Your task to perform on an android device: change your default location settings in chrome Image 0: 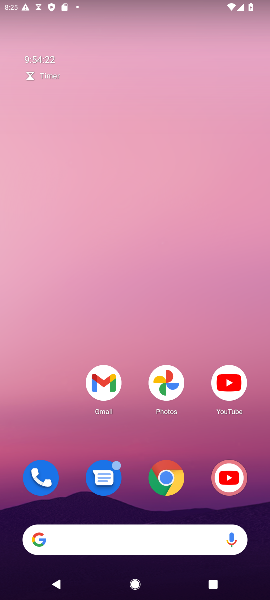
Step 0: drag from (204, 350) to (194, 9)
Your task to perform on an android device: change your default location settings in chrome Image 1: 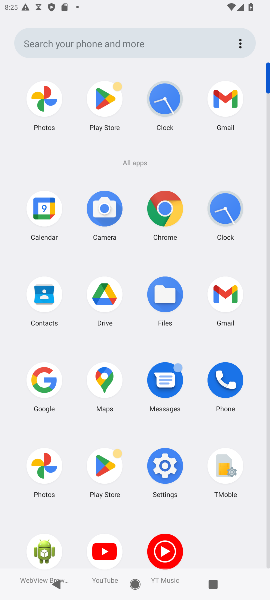
Step 1: click (170, 208)
Your task to perform on an android device: change your default location settings in chrome Image 2: 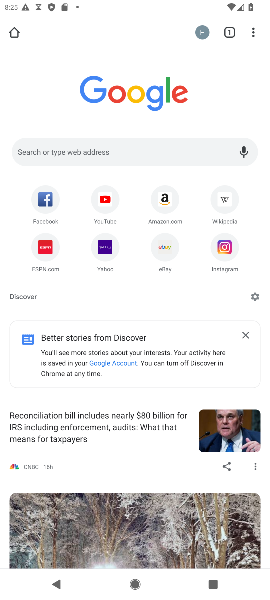
Step 2: click (260, 35)
Your task to perform on an android device: change your default location settings in chrome Image 3: 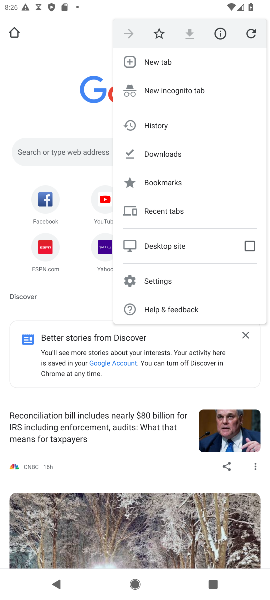
Step 3: click (151, 277)
Your task to perform on an android device: change your default location settings in chrome Image 4: 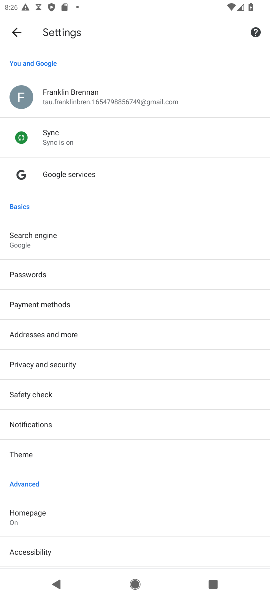
Step 4: drag from (63, 535) to (65, 225)
Your task to perform on an android device: change your default location settings in chrome Image 5: 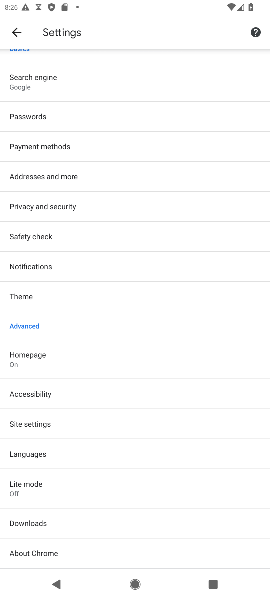
Step 5: click (66, 431)
Your task to perform on an android device: change your default location settings in chrome Image 6: 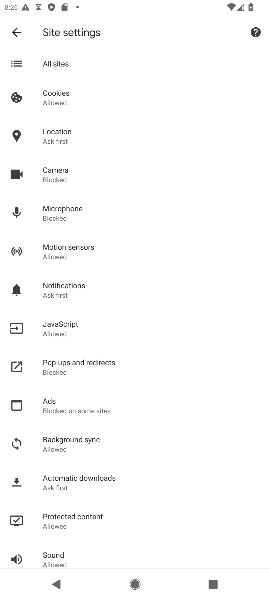
Step 6: click (91, 133)
Your task to perform on an android device: change your default location settings in chrome Image 7: 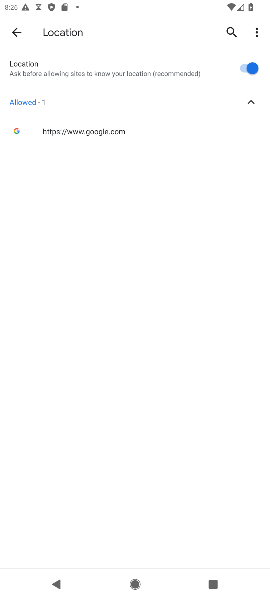
Step 7: click (259, 41)
Your task to perform on an android device: change your default location settings in chrome Image 8: 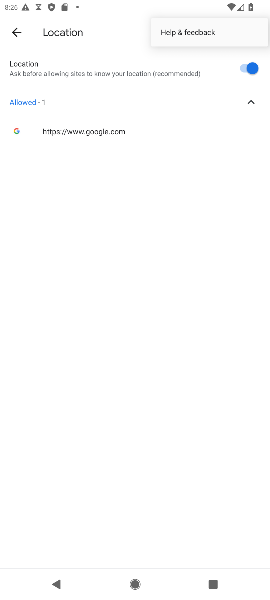
Step 8: task complete